Your task to perform on an android device: turn on javascript in the chrome app Image 0: 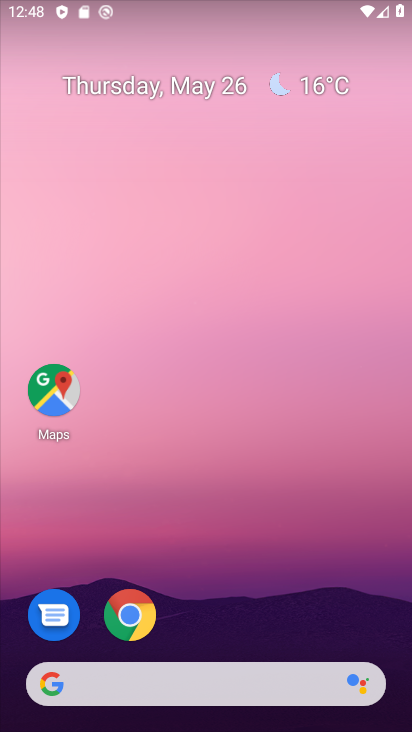
Step 0: drag from (226, 512) to (291, 31)
Your task to perform on an android device: turn on javascript in the chrome app Image 1: 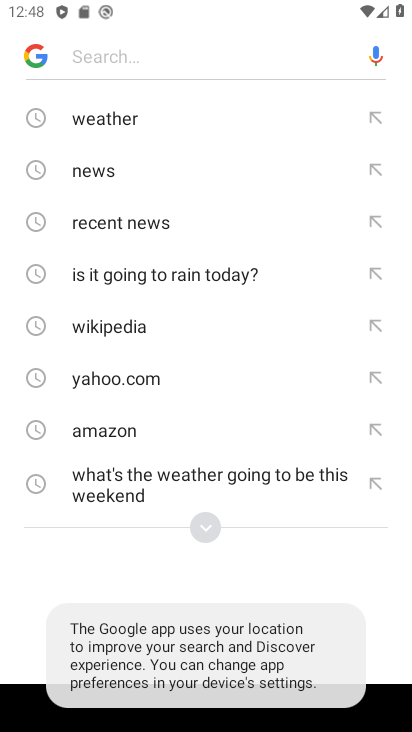
Step 1: press home button
Your task to perform on an android device: turn on javascript in the chrome app Image 2: 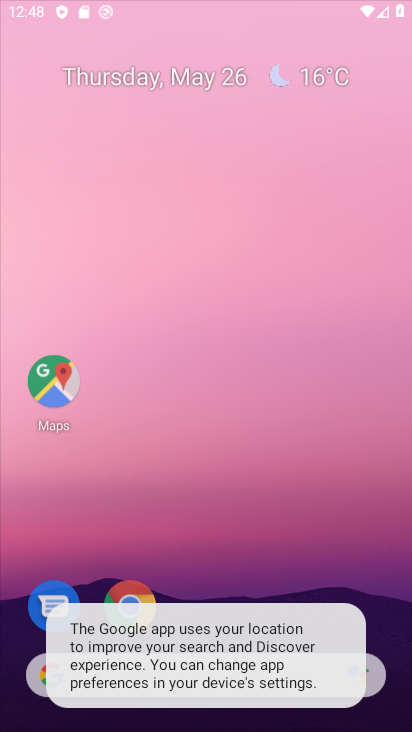
Step 2: drag from (131, 341) to (215, 165)
Your task to perform on an android device: turn on javascript in the chrome app Image 3: 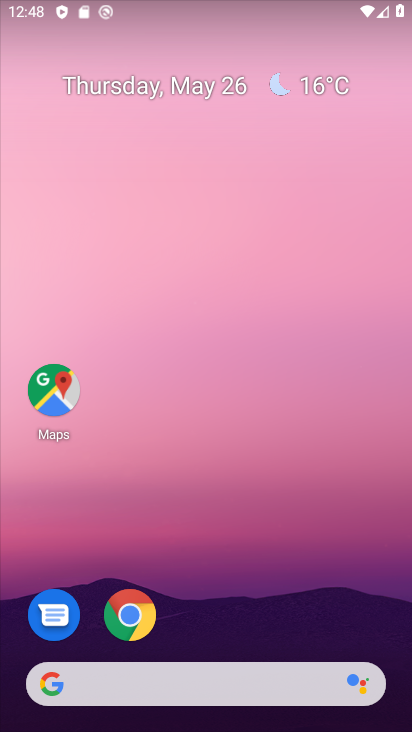
Step 3: click (130, 615)
Your task to perform on an android device: turn on javascript in the chrome app Image 4: 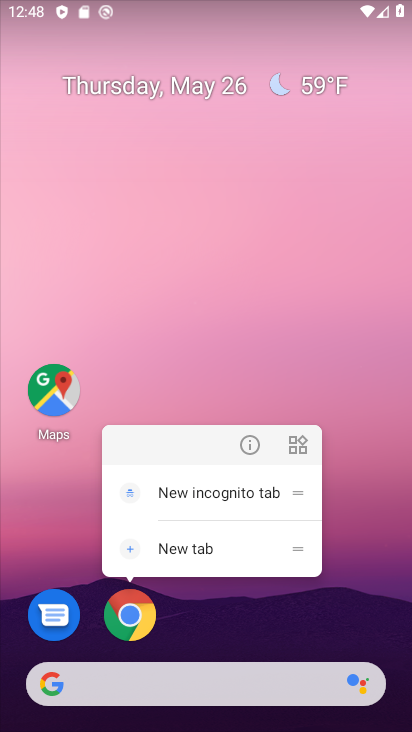
Step 4: click (252, 443)
Your task to perform on an android device: turn on javascript in the chrome app Image 5: 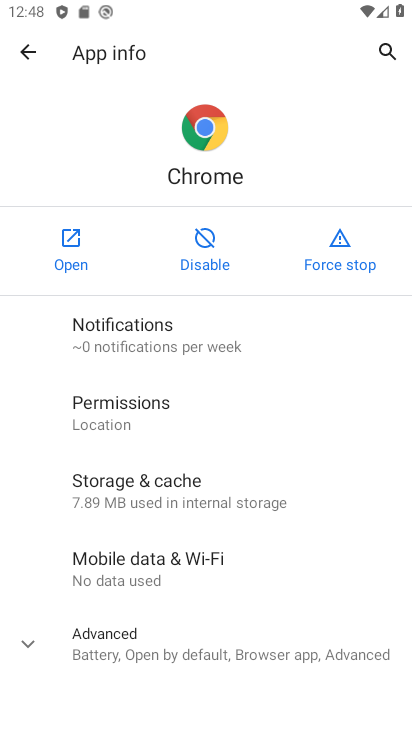
Step 5: click (65, 258)
Your task to perform on an android device: turn on javascript in the chrome app Image 6: 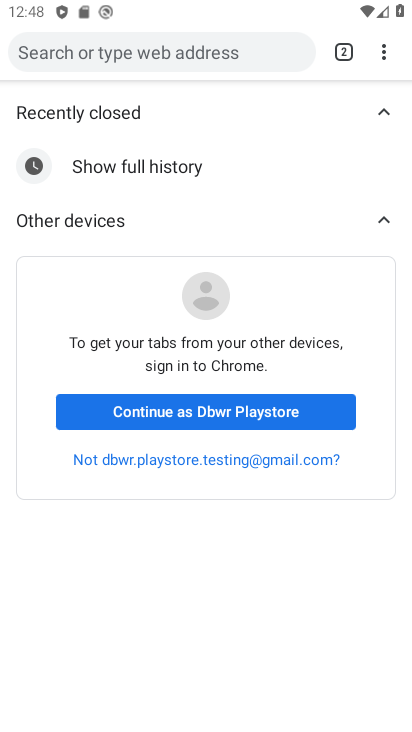
Step 6: click (381, 51)
Your task to perform on an android device: turn on javascript in the chrome app Image 7: 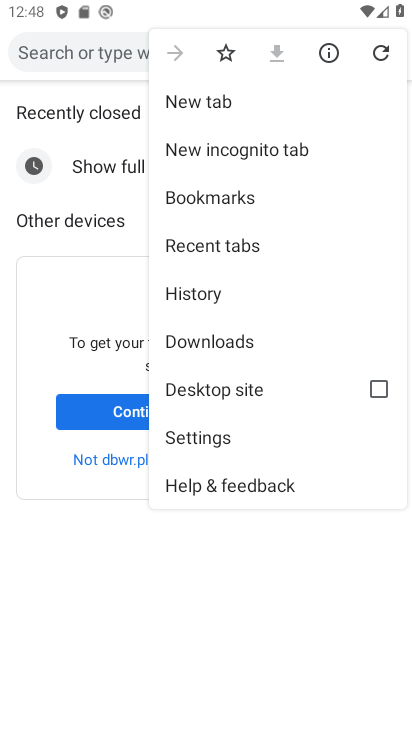
Step 7: click (222, 417)
Your task to perform on an android device: turn on javascript in the chrome app Image 8: 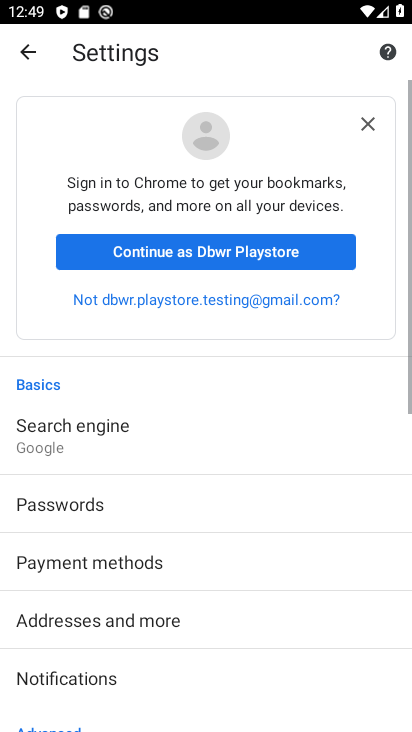
Step 8: drag from (142, 625) to (220, 149)
Your task to perform on an android device: turn on javascript in the chrome app Image 9: 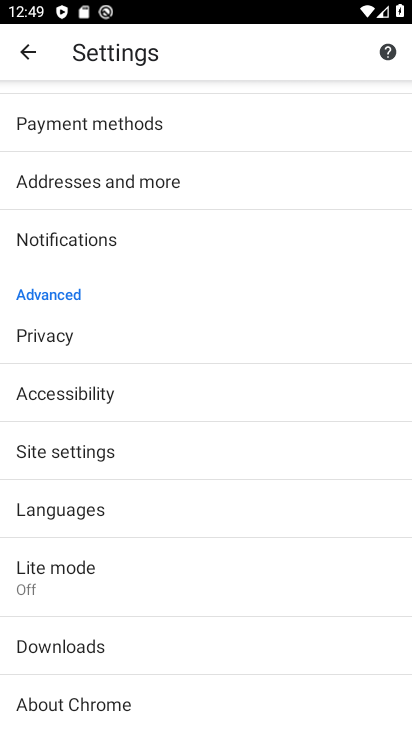
Step 9: click (125, 457)
Your task to perform on an android device: turn on javascript in the chrome app Image 10: 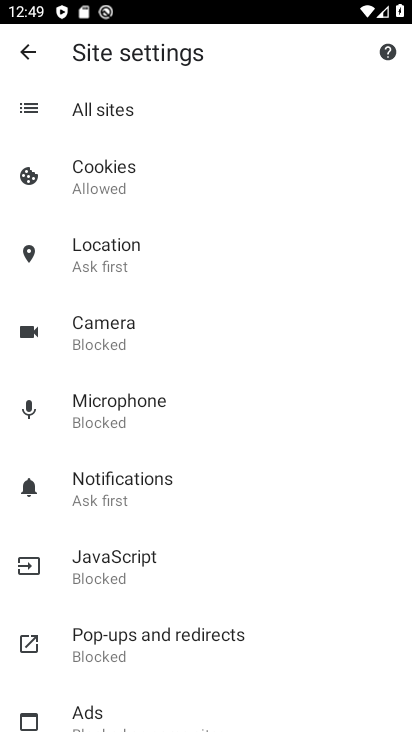
Step 10: click (113, 555)
Your task to perform on an android device: turn on javascript in the chrome app Image 11: 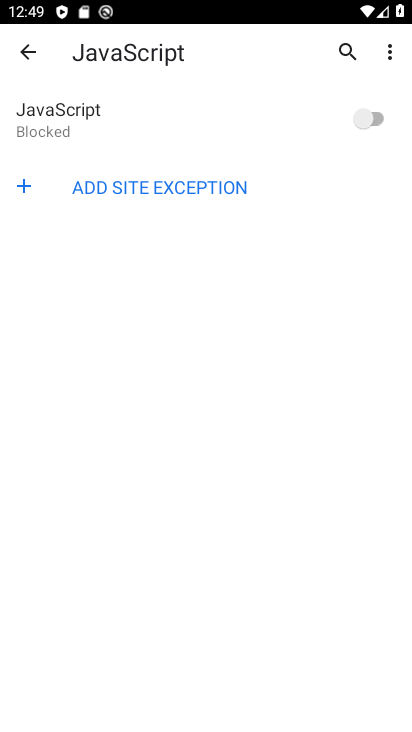
Step 11: click (374, 132)
Your task to perform on an android device: turn on javascript in the chrome app Image 12: 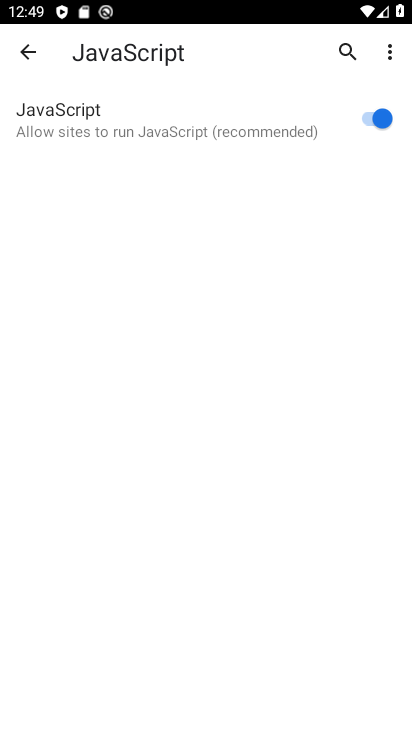
Step 12: task complete